Your task to perform on an android device: Open settings on Google Maps Image 0: 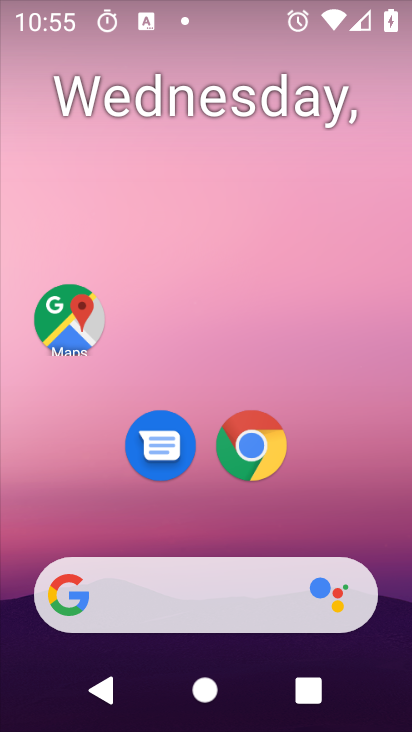
Step 0: drag from (318, 503) to (378, 11)
Your task to perform on an android device: Open settings on Google Maps Image 1: 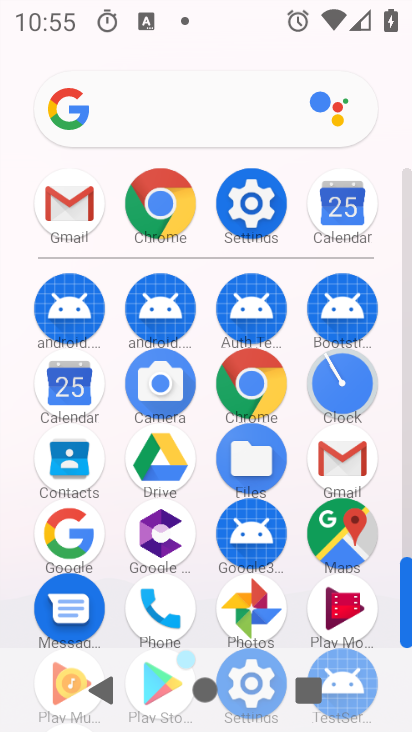
Step 1: click (362, 529)
Your task to perform on an android device: Open settings on Google Maps Image 2: 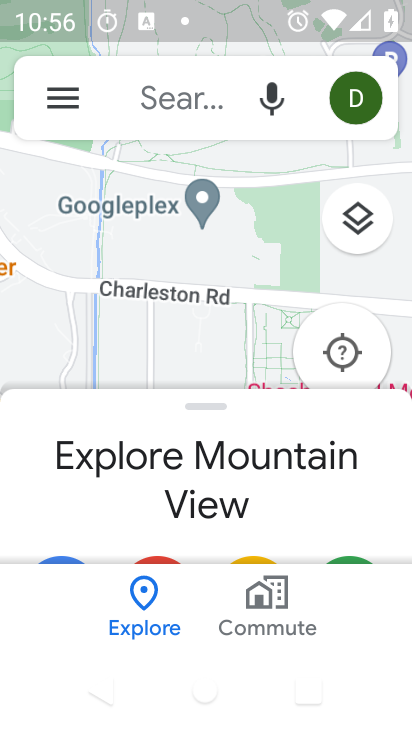
Step 2: click (66, 89)
Your task to perform on an android device: Open settings on Google Maps Image 3: 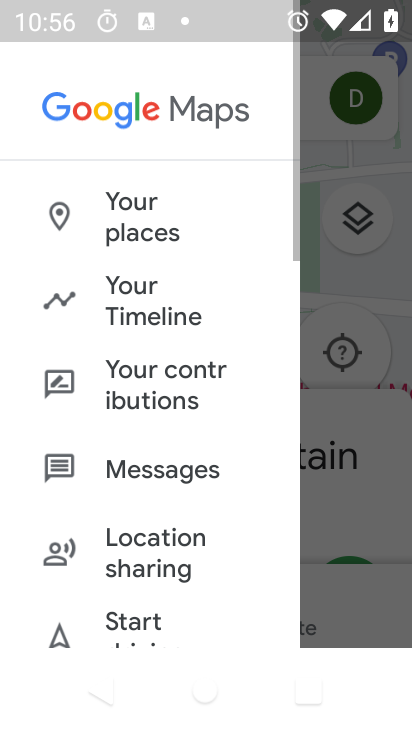
Step 3: drag from (188, 496) to (235, 88)
Your task to perform on an android device: Open settings on Google Maps Image 4: 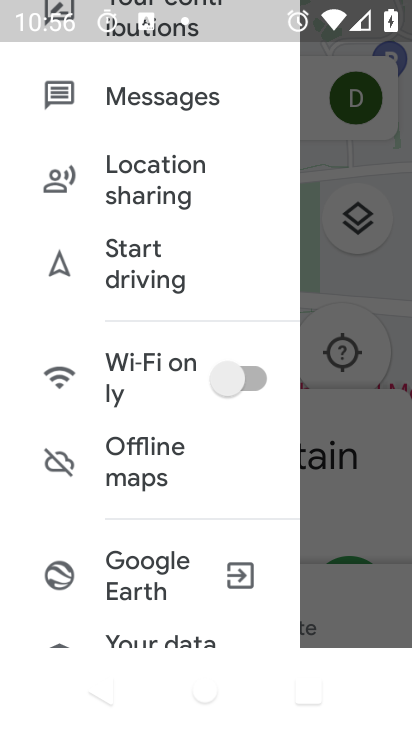
Step 4: drag from (148, 517) to (121, 184)
Your task to perform on an android device: Open settings on Google Maps Image 5: 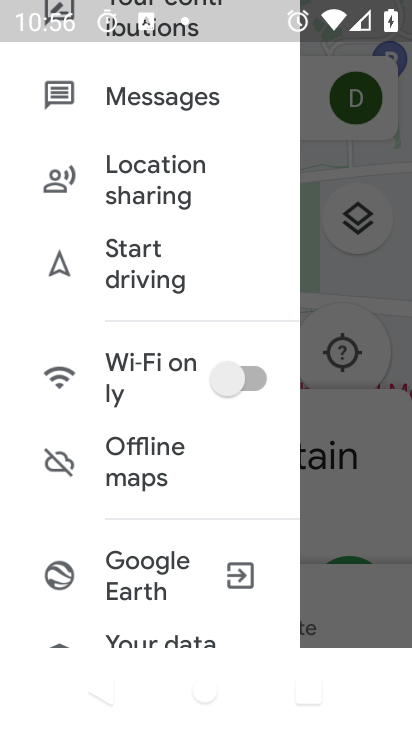
Step 5: drag from (171, 591) to (252, 190)
Your task to perform on an android device: Open settings on Google Maps Image 6: 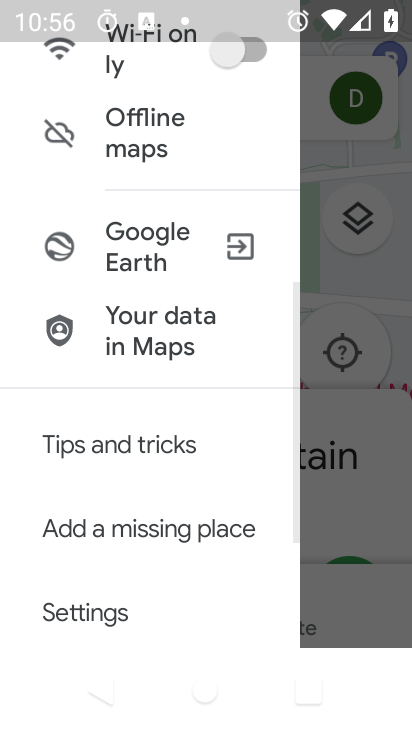
Step 6: drag from (178, 570) to (237, 159)
Your task to perform on an android device: Open settings on Google Maps Image 7: 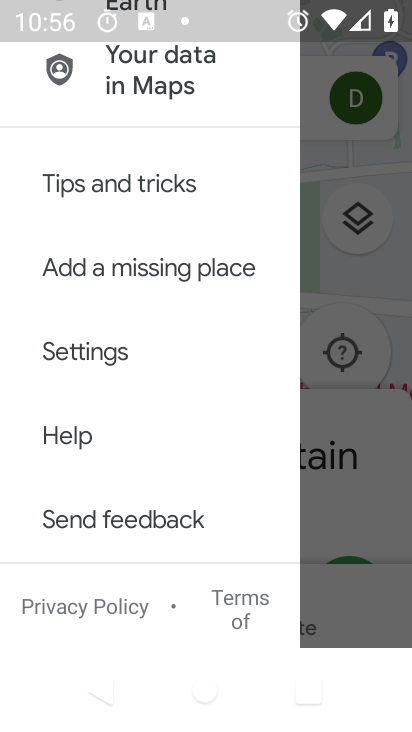
Step 7: click (89, 374)
Your task to perform on an android device: Open settings on Google Maps Image 8: 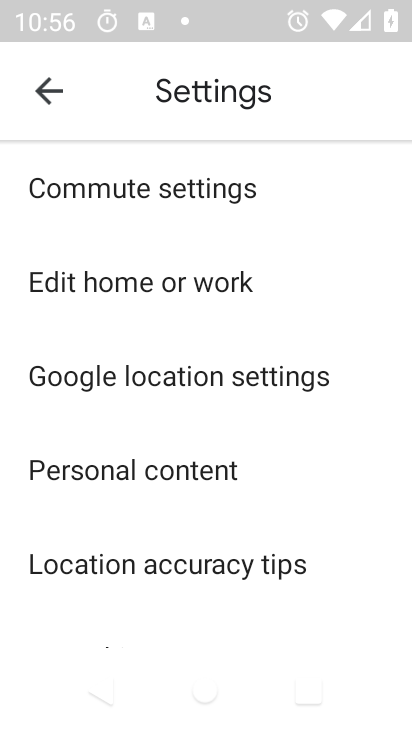
Step 8: task complete